Your task to perform on an android device: turn on improve location accuracy Image 0: 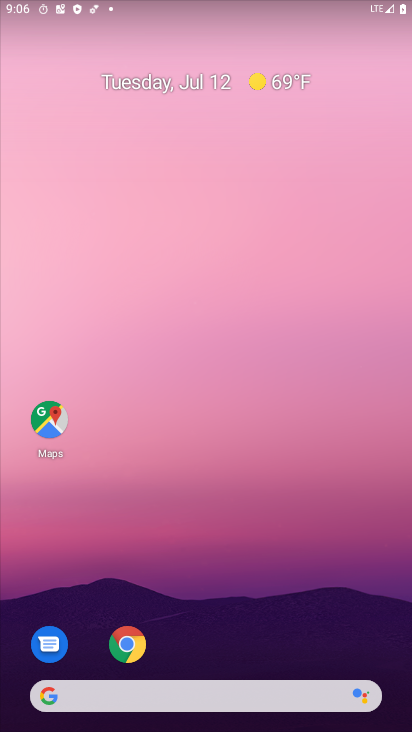
Step 0: drag from (207, 660) to (220, 148)
Your task to perform on an android device: turn on improve location accuracy Image 1: 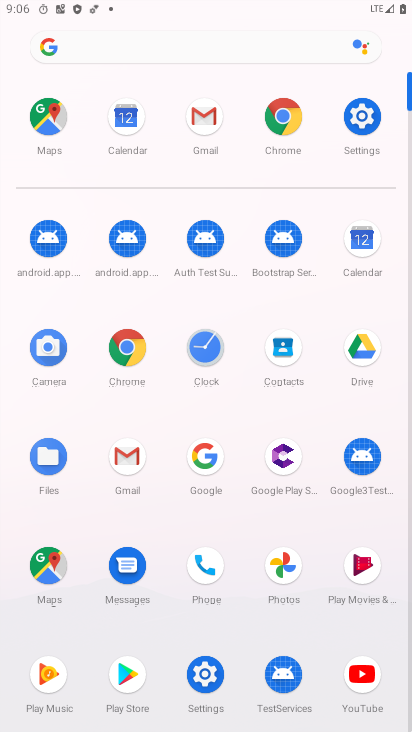
Step 1: click (366, 110)
Your task to perform on an android device: turn on improve location accuracy Image 2: 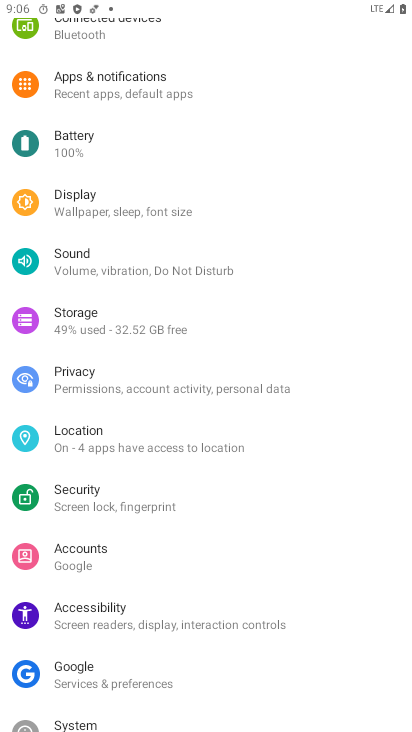
Step 2: click (112, 425)
Your task to perform on an android device: turn on improve location accuracy Image 3: 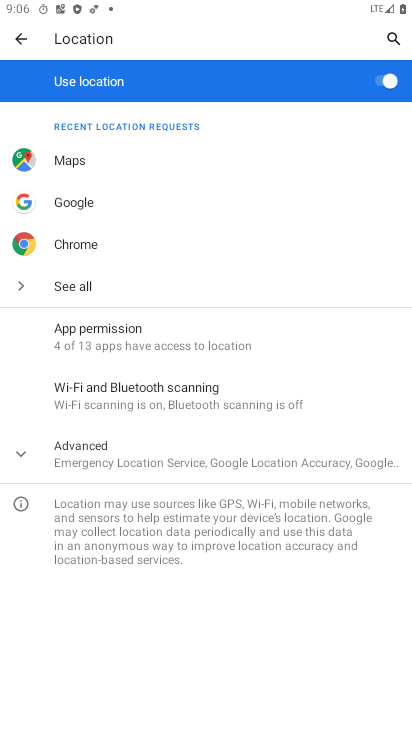
Step 3: click (43, 447)
Your task to perform on an android device: turn on improve location accuracy Image 4: 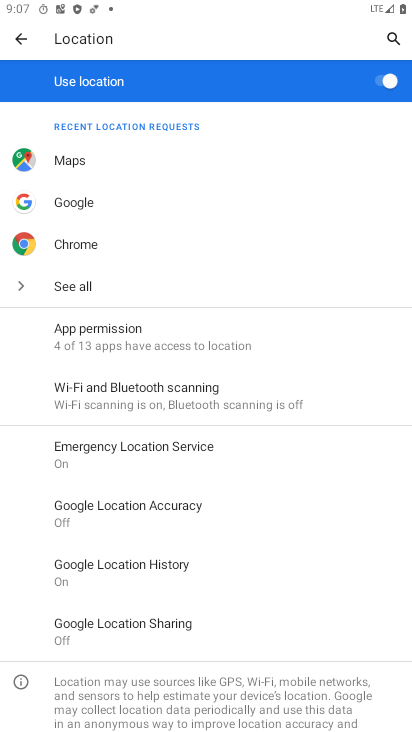
Step 4: click (142, 509)
Your task to perform on an android device: turn on improve location accuracy Image 5: 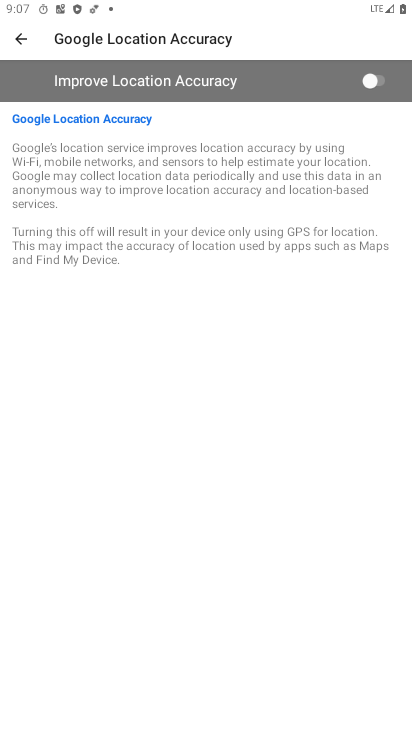
Step 5: click (374, 78)
Your task to perform on an android device: turn on improve location accuracy Image 6: 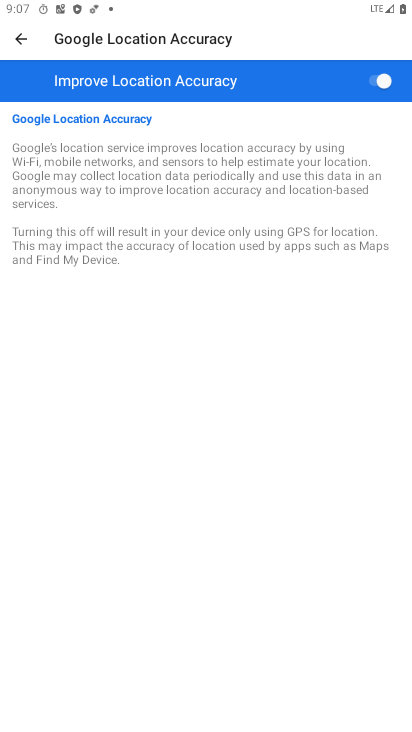
Step 6: task complete